Your task to perform on an android device: turn notification dots on Image 0: 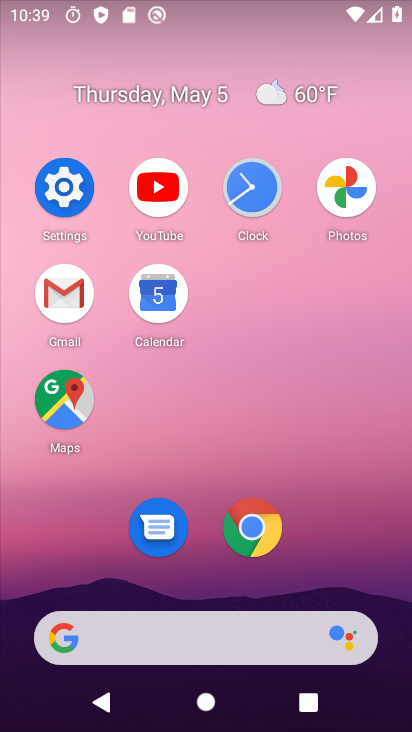
Step 0: click (76, 180)
Your task to perform on an android device: turn notification dots on Image 1: 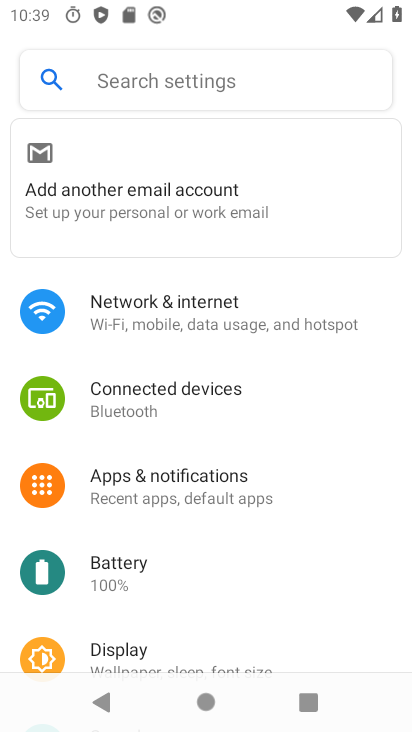
Step 1: click (222, 480)
Your task to perform on an android device: turn notification dots on Image 2: 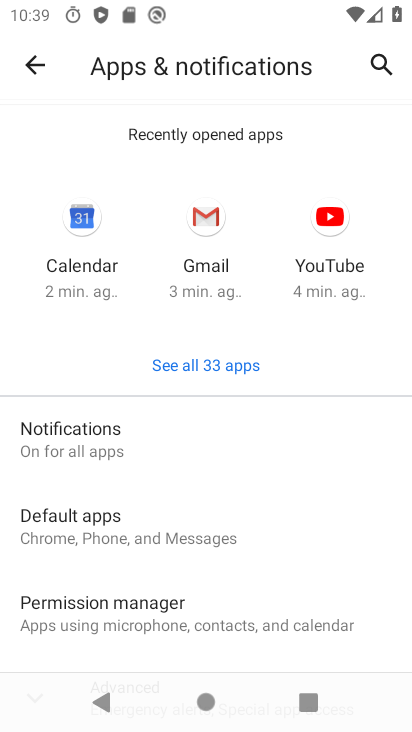
Step 2: click (115, 444)
Your task to perform on an android device: turn notification dots on Image 3: 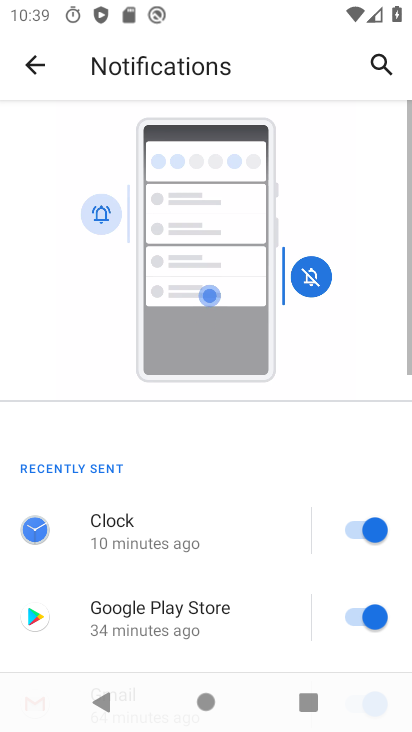
Step 3: drag from (204, 597) to (168, 94)
Your task to perform on an android device: turn notification dots on Image 4: 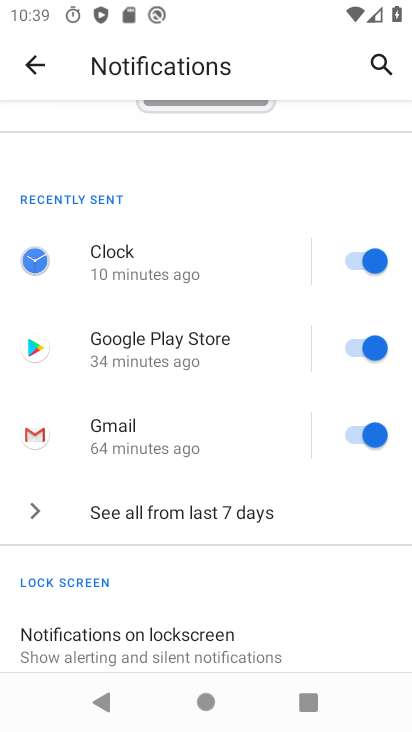
Step 4: drag from (185, 593) to (198, 185)
Your task to perform on an android device: turn notification dots on Image 5: 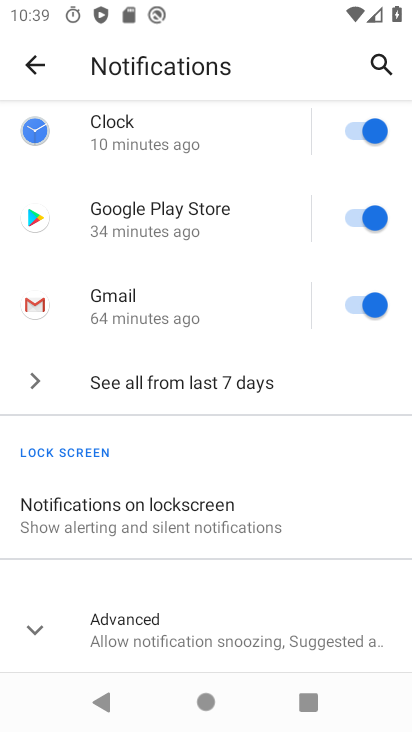
Step 5: click (143, 643)
Your task to perform on an android device: turn notification dots on Image 6: 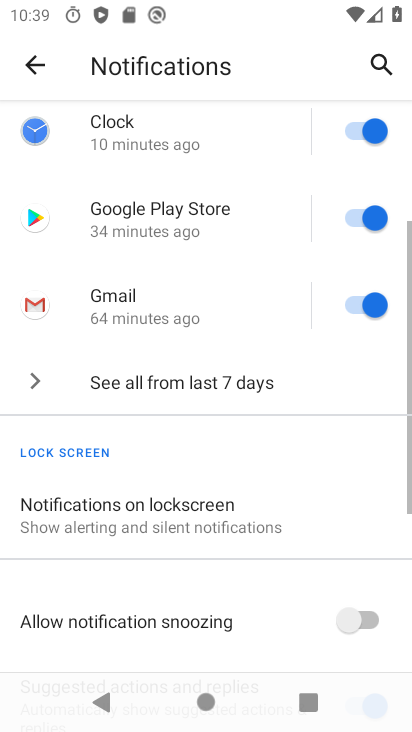
Step 6: task complete